Your task to perform on an android device: Show the shopping cart on newegg.com. Image 0: 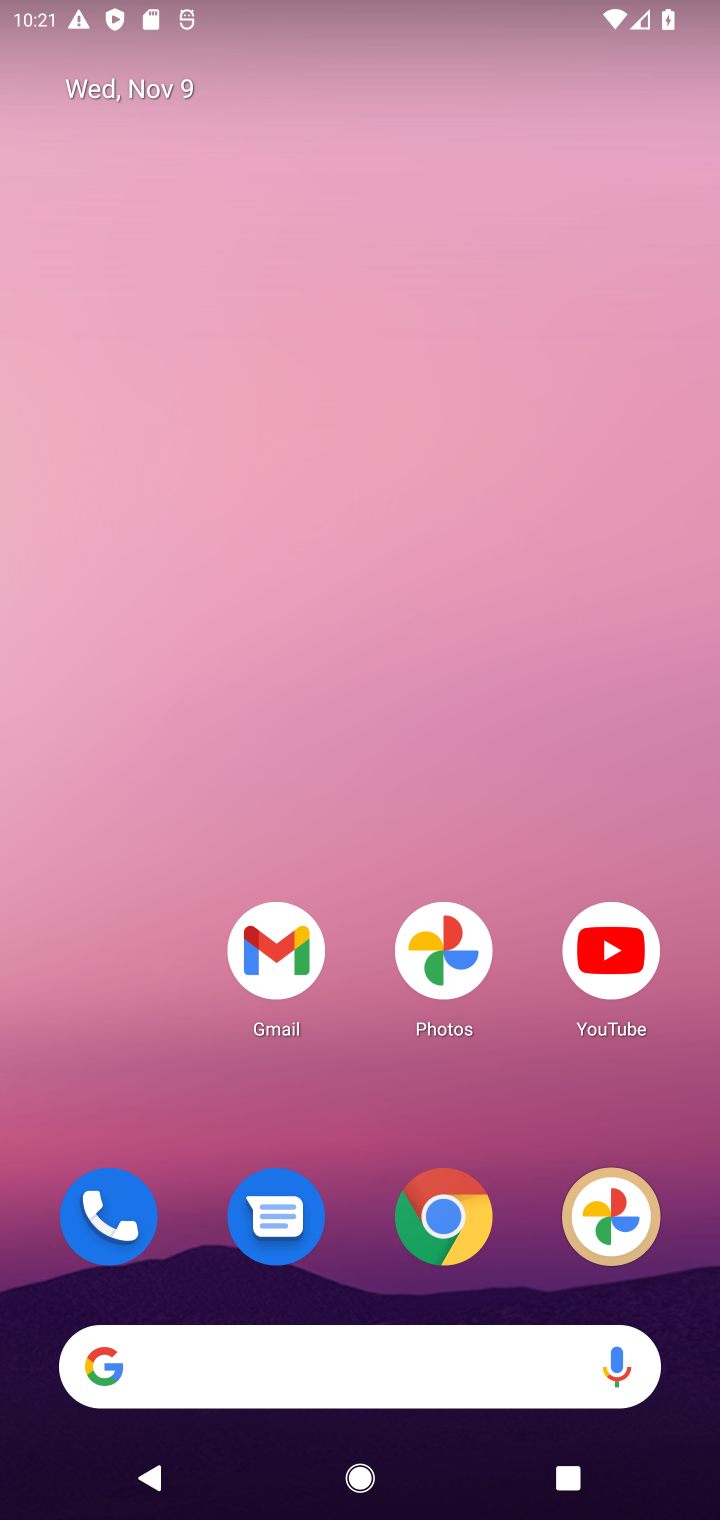
Step 0: drag from (420, 638) to (543, 2)
Your task to perform on an android device: Show the shopping cart on newegg.com. Image 1: 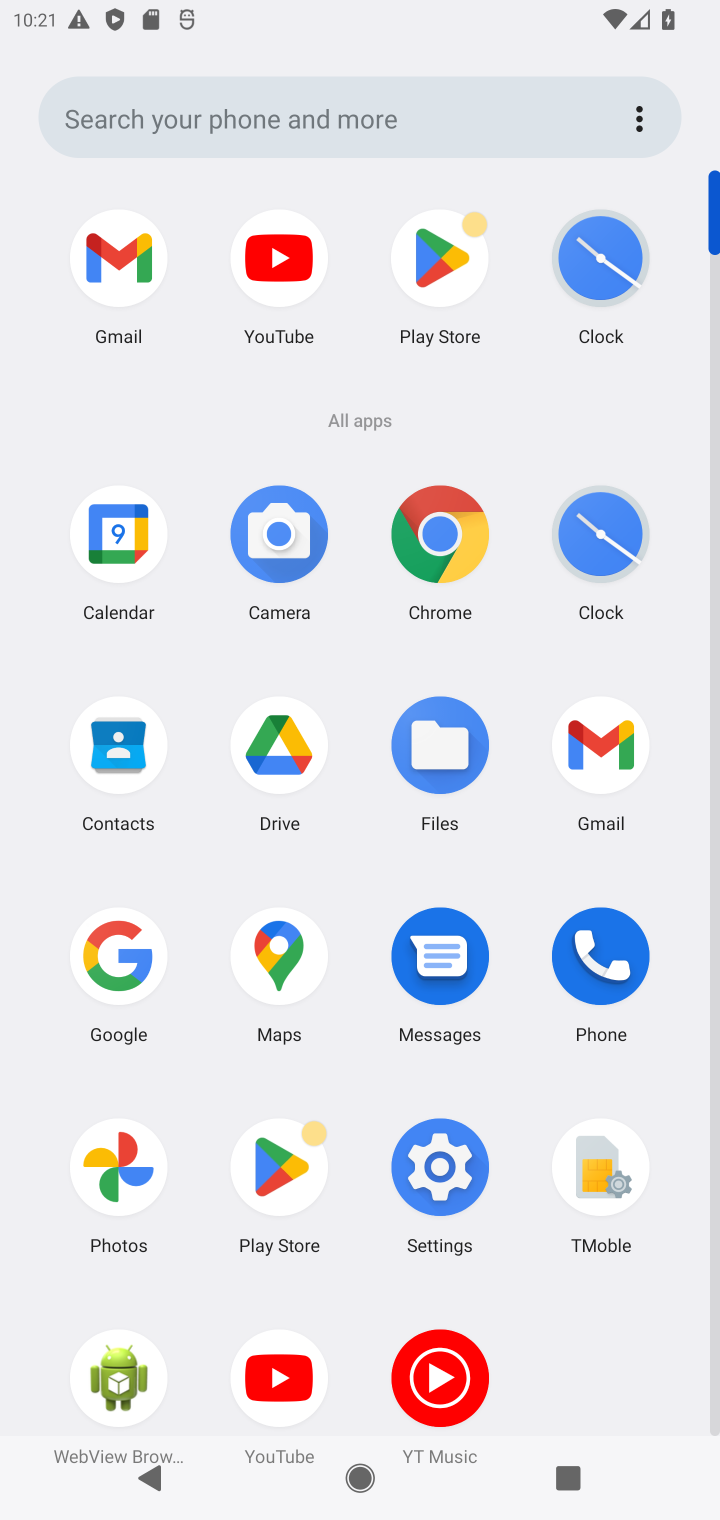
Step 1: click (427, 524)
Your task to perform on an android device: Show the shopping cart on newegg.com. Image 2: 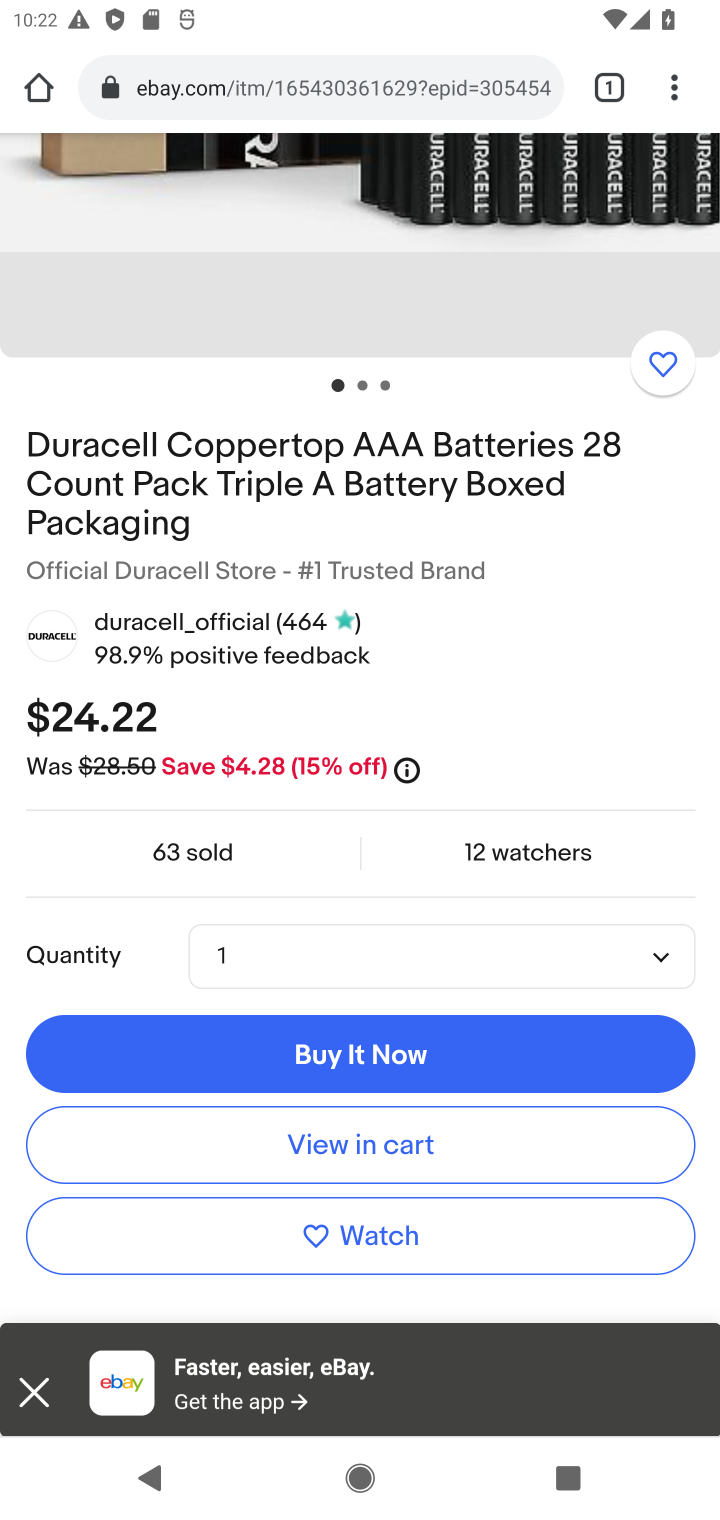
Step 2: click (359, 82)
Your task to perform on an android device: Show the shopping cart on newegg.com. Image 3: 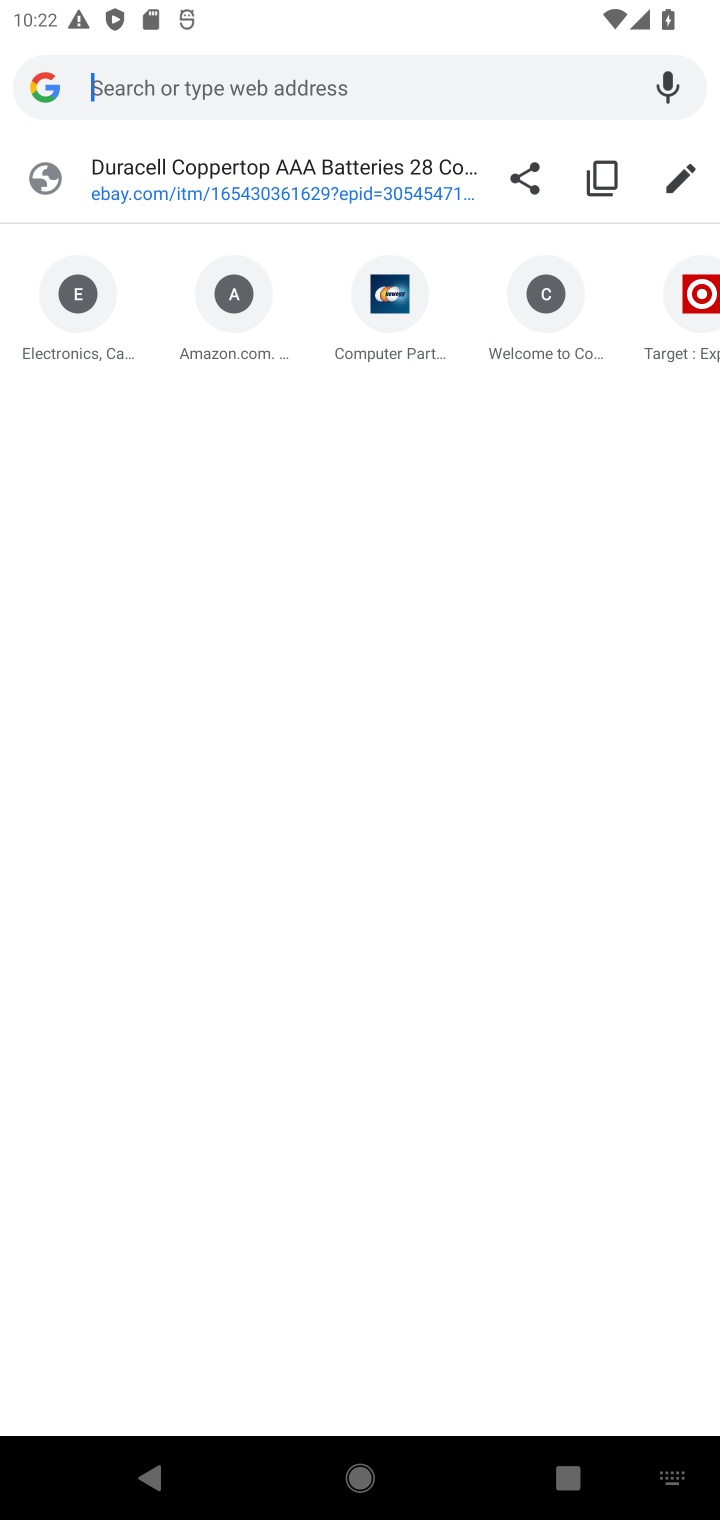
Step 3: type "newegg.com"
Your task to perform on an android device: Show the shopping cart on newegg.com. Image 4: 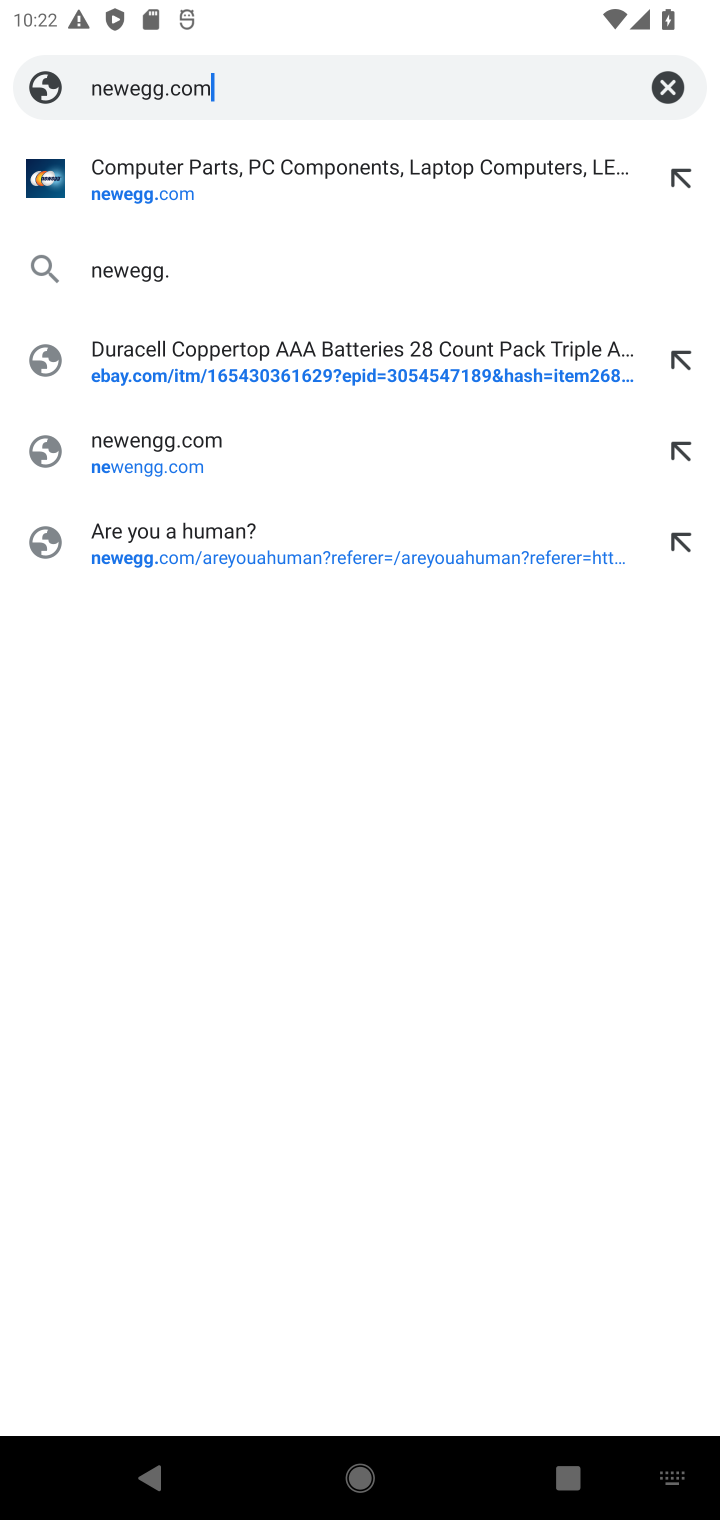
Step 4: press enter
Your task to perform on an android device: Show the shopping cart on newegg.com. Image 5: 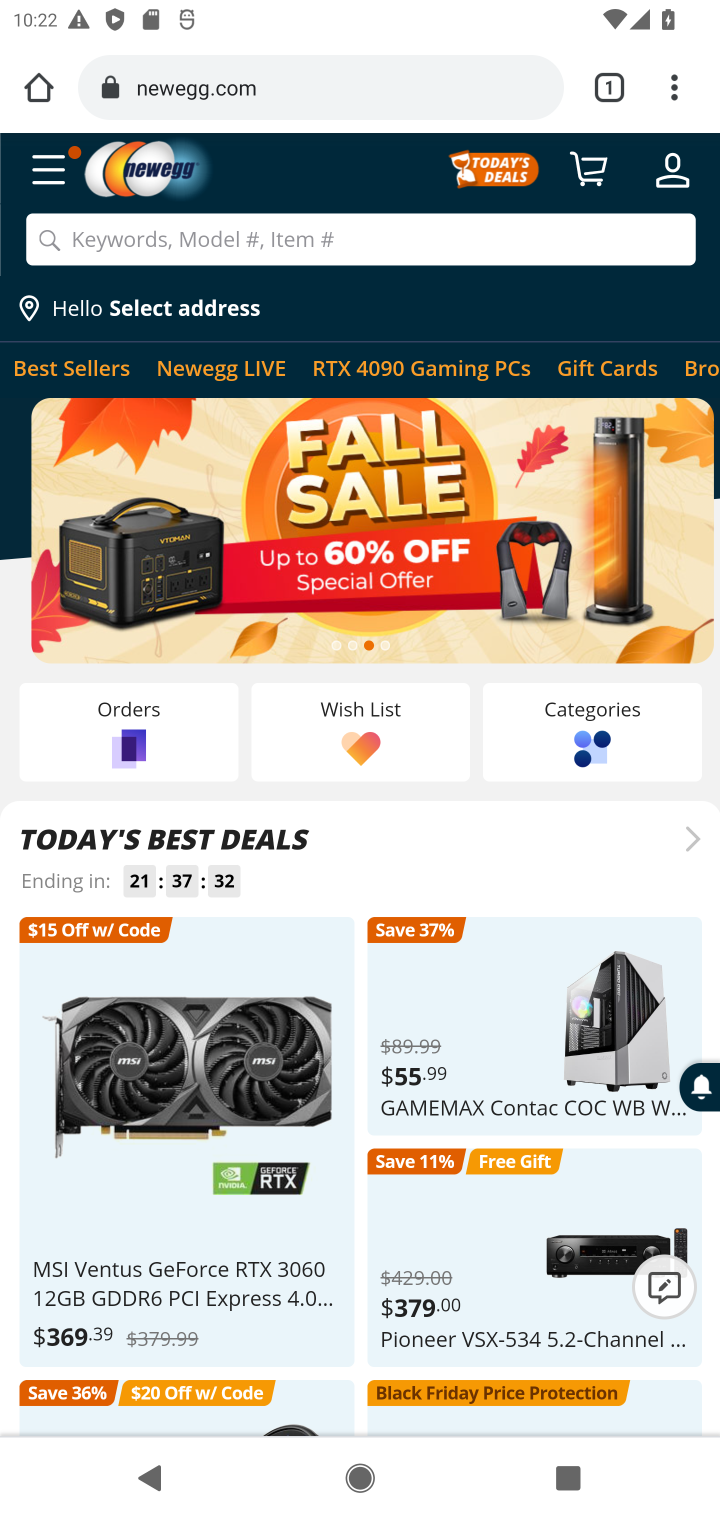
Step 5: click (605, 161)
Your task to perform on an android device: Show the shopping cart on newegg.com. Image 6: 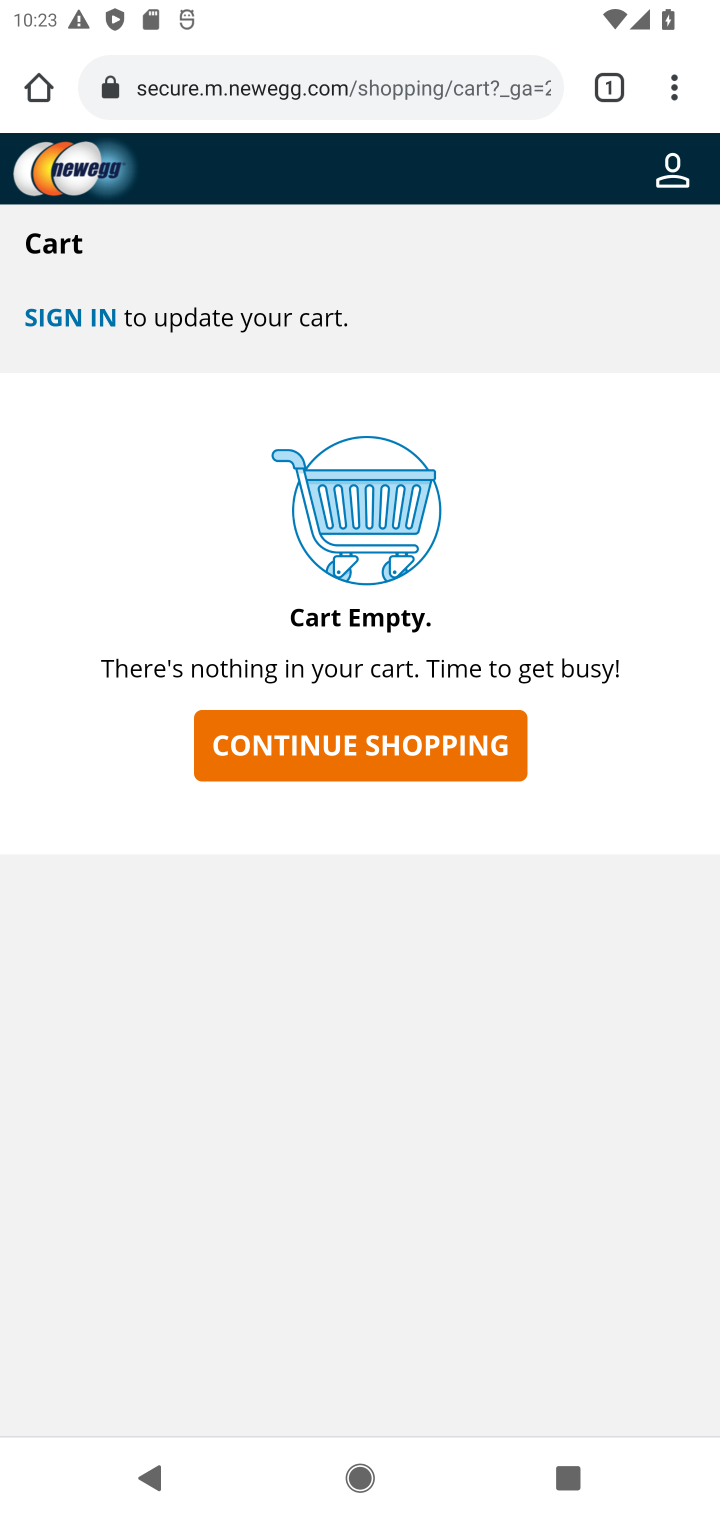
Step 6: task complete